Your task to perform on an android device: Open the Play Movies app and select the watchlist tab. Image 0: 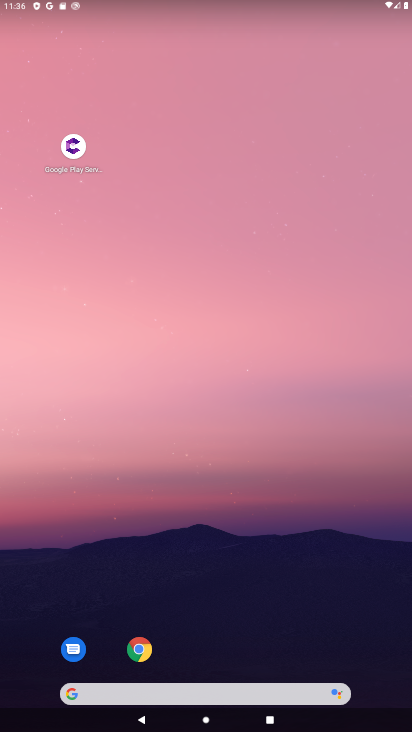
Step 0: drag from (339, 619) to (289, 97)
Your task to perform on an android device: Open the Play Movies app and select the watchlist tab. Image 1: 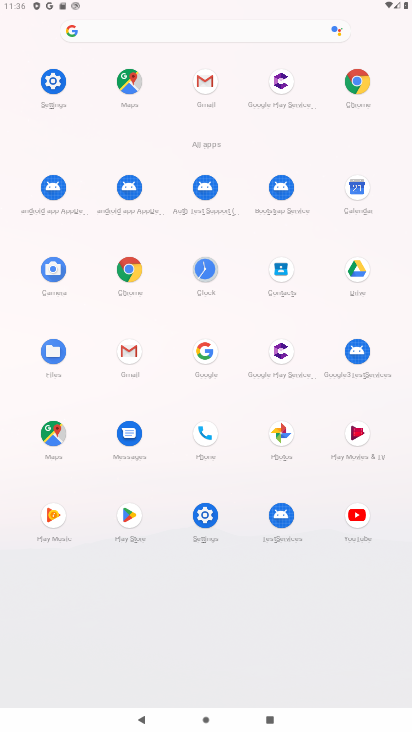
Step 1: click (351, 443)
Your task to perform on an android device: Open the Play Movies app and select the watchlist tab. Image 2: 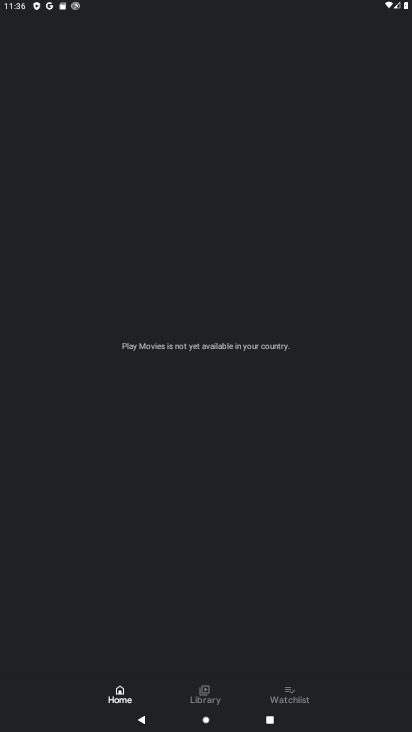
Step 2: click (300, 694)
Your task to perform on an android device: Open the Play Movies app and select the watchlist tab. Image 3: 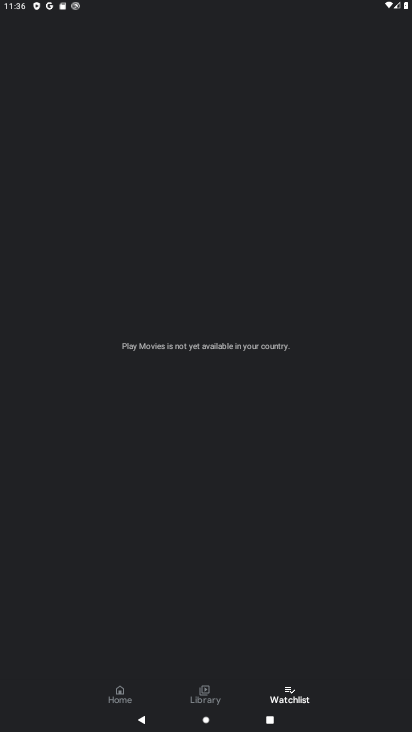
Step 3: task complete